Your task to perform on an android device: change text size in settings app Image 0: 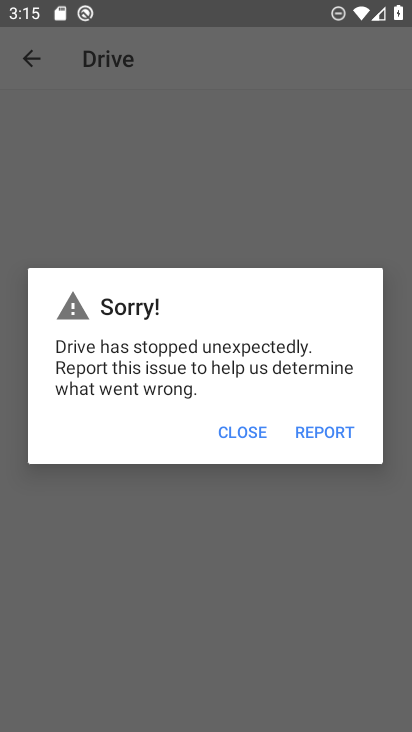
Step 0: press home button
Your task to perform on an android device: change text size in settings app Image 1: 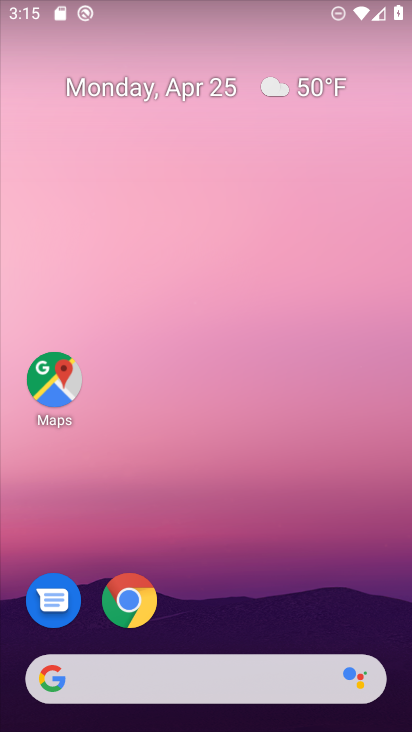
Step 1: drag from (204, 638) to (114, 1)
Your task to perform on an android device: change text size in settings app Image 2: 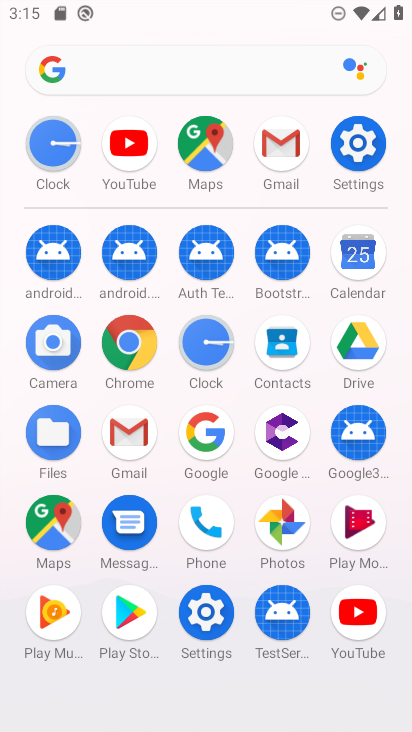
Step 2: click (359, 144)
Your task to perform on an android device: change text size in settings app Image 3: 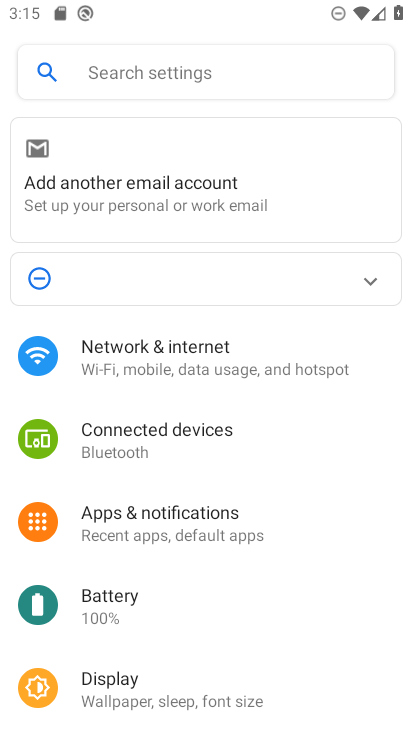
Step 3: drag from (217, 601) to (199, 299)
Your task to perform on an android device: change text size in settings app Image 4: 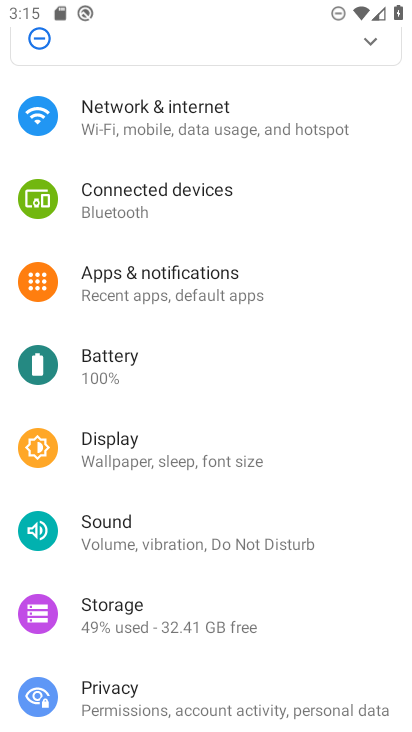
Step 4: click (140, 459)
Your task to perform on an android device: change text size in settings app Image 5: 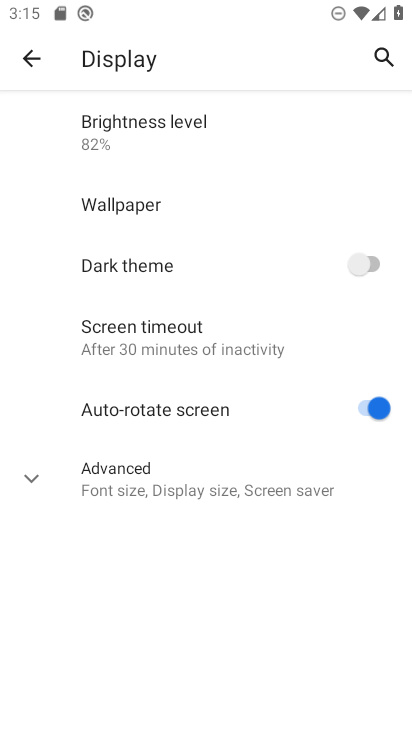
Step 5: click (130, 468)
Your task to perform on an android device: change text size in settings app Image 6: 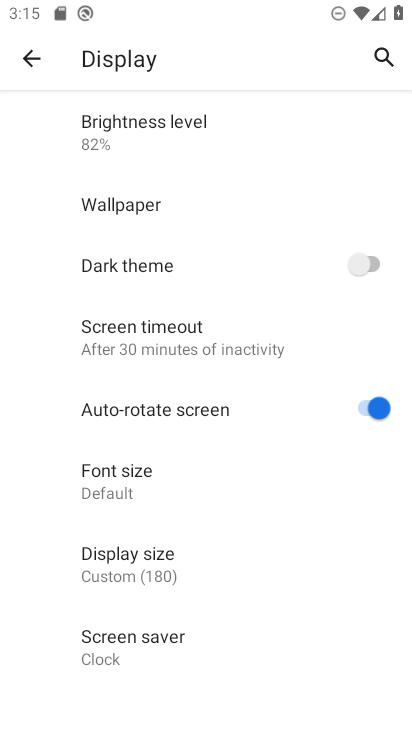
Step 6: click (142, 474)
Your task to perform on an android device: change text size in settings app Image 7: 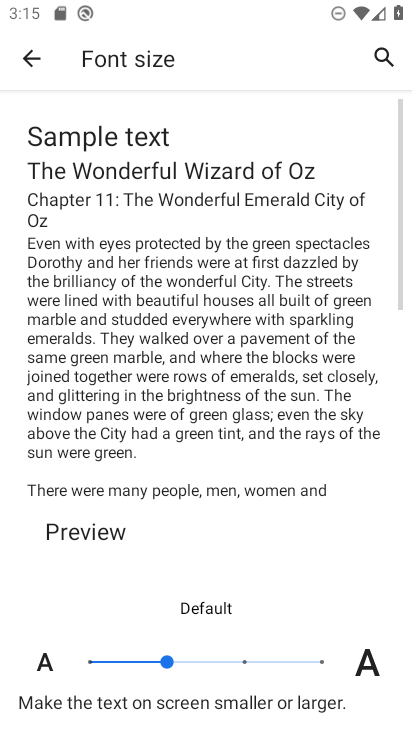
Step 7: click (229, 659)
Your task to perform on an android device: change text size in settings app Image 8: 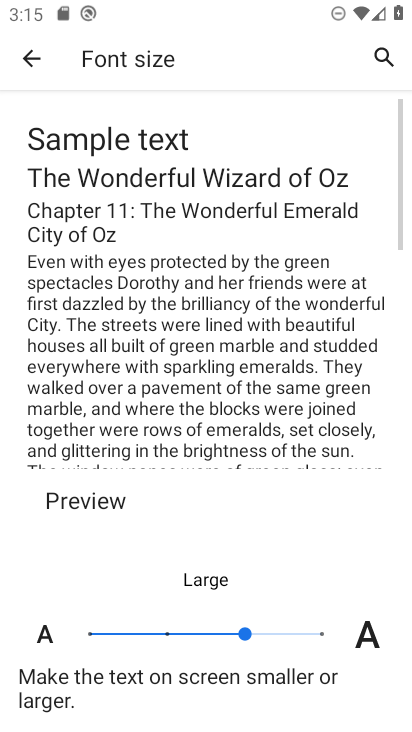
Step 8: task complete